Your task to perform on an android device: Open accessibility settings Image 0: 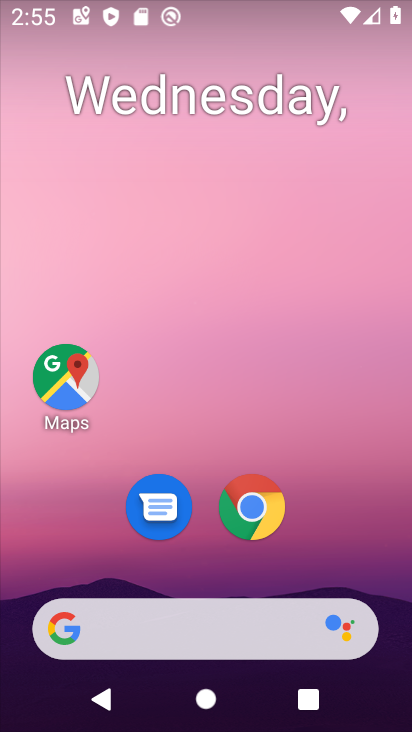
Step 0: drag from (337, 576) to (256, 212)
Your task to perform on an android device: Open accessibility settings Image 1: 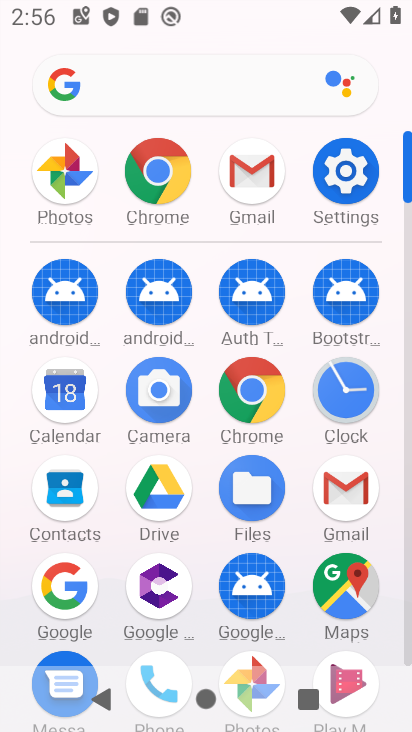
Step 1: click (346, 178)
Your task to perform on an android device: Open accessibility settings Image 2: 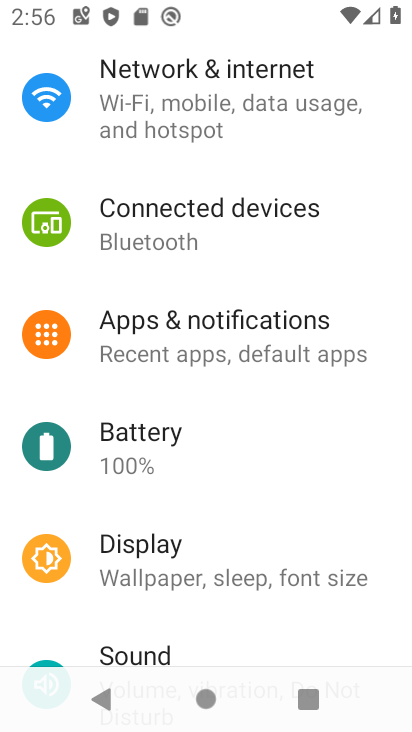
Step 2: drag from (220, 538) to (238, 202)
Your task to perform on an android device: Open accessibility settings Image 3: 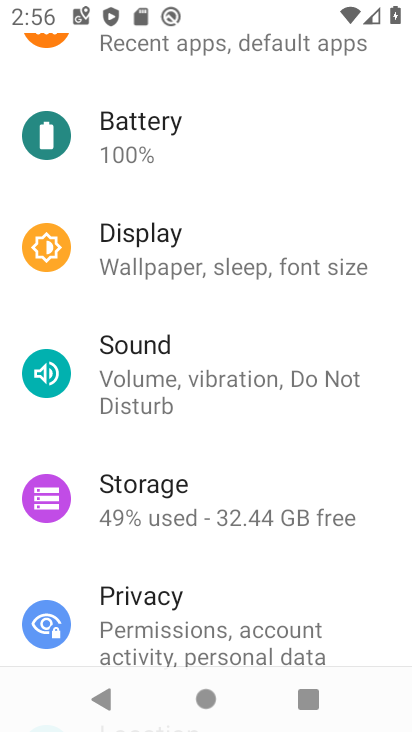
Step 3: drag from (240, 517) to (240, 200)
Your task to perform on an android device: Open accessibility settings Image 4: 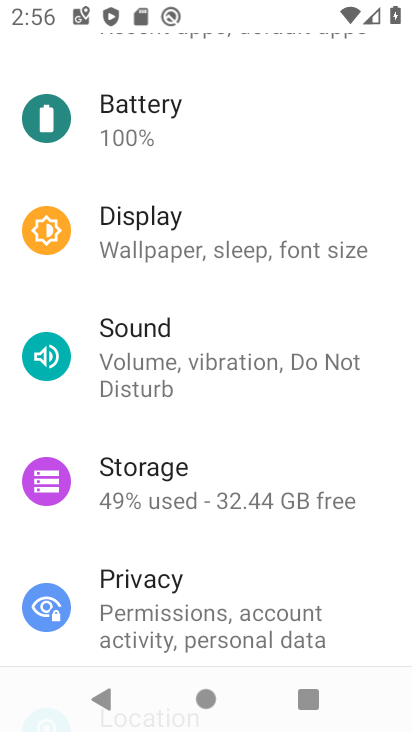
Step 4: drag from (287, 551) to (285, 248)
Your task to perform on an android device: Open accessibility settings Image 5: 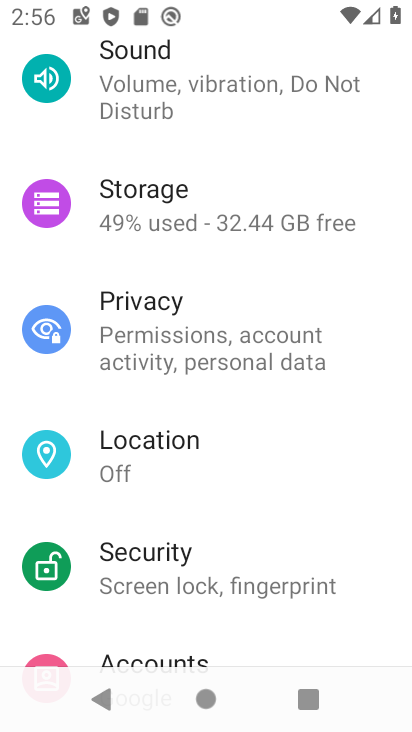
Step 5: drag from (233, 524) to (290, 194)
Your task to perform on an android device: Open accessibility settings Image 6: 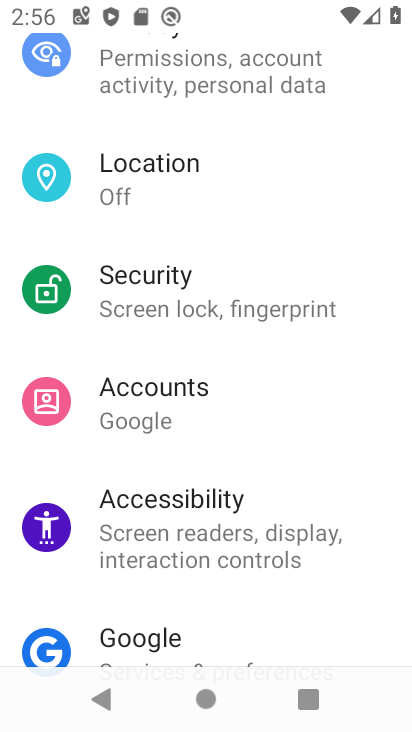
Step 6: drag from (277, 534) to (284, 397)
Your task to perform on an android device: Open accessibility settings Image 7: 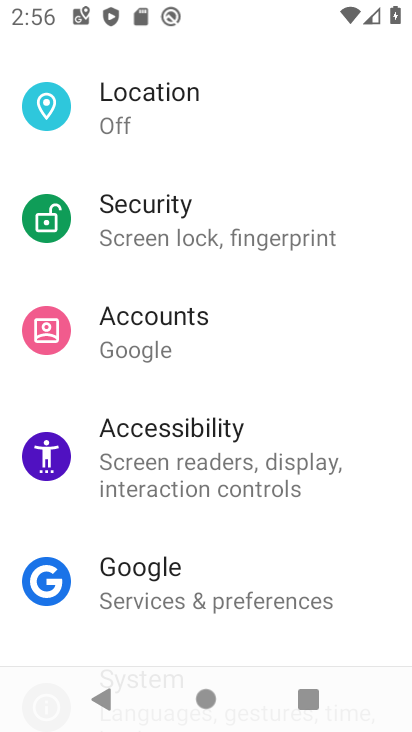
Step 7: click (205, 448)
Your task to perform on an android device: Open accessibility settings Image 8: 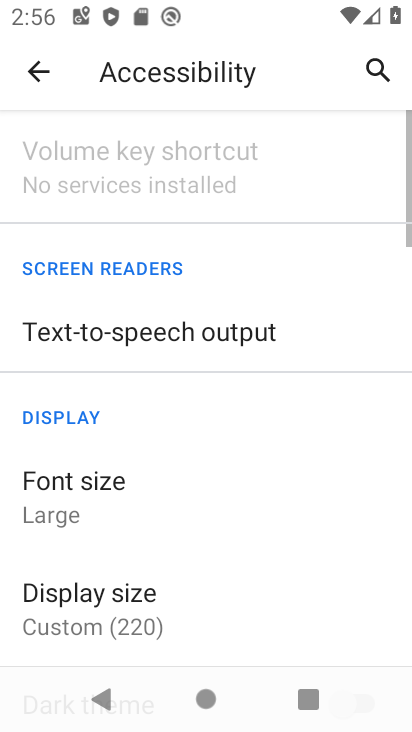
Step 8: task complete